Your task to perform on an android device: refresh tabs in the chrome app Image 0: 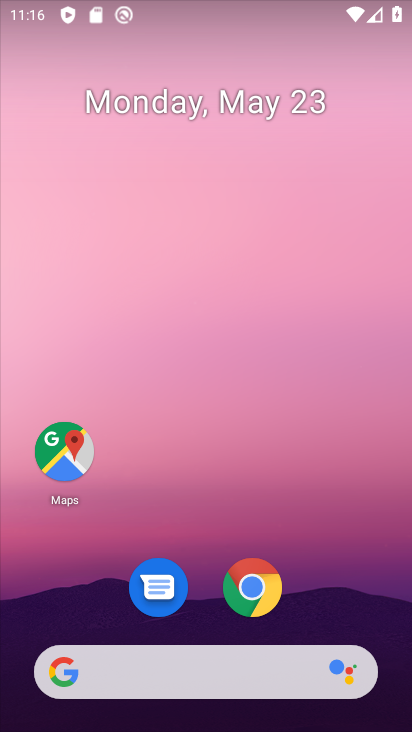
Step 0: click (262, 577)
Your task to perform on an android device: refresh tabs in the chrome app Image 1: 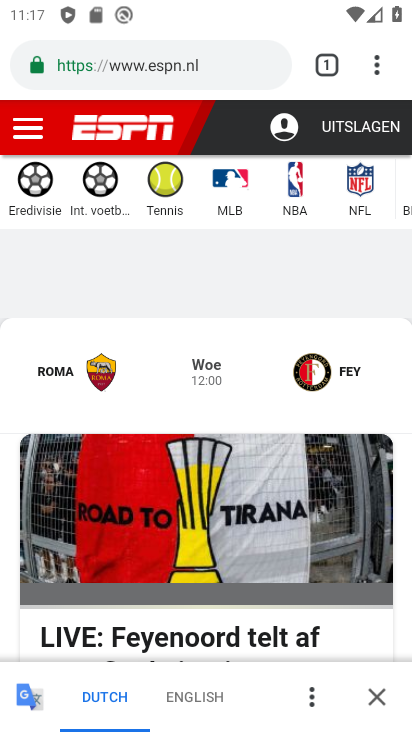
Step 1: click (382, 46)
Your task to perform on an android device: refresh tabs in the chrome app Image 2: 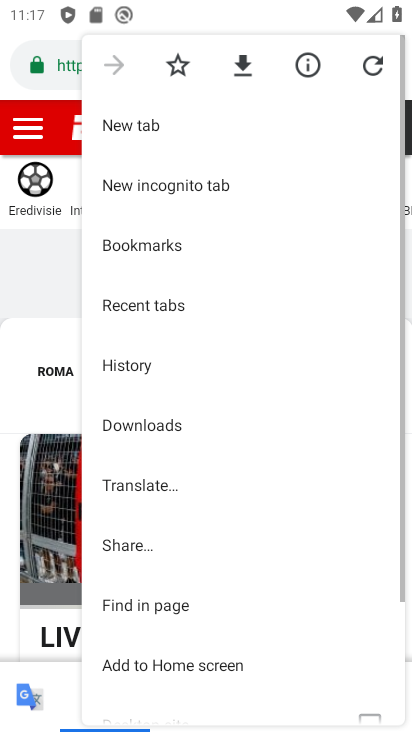
Step 2: click (382, 46)
Your task to perform on an android device: refresh tabs in the chrome app Image 3: 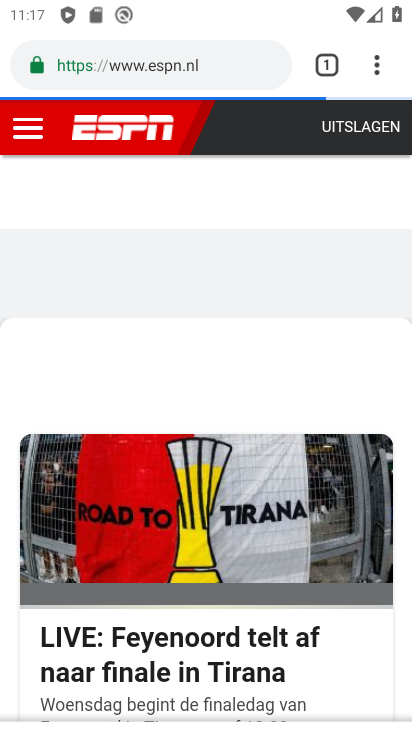
Step 3: task complete